Your task to perform on an android device: open device folders in google photos Image 0: 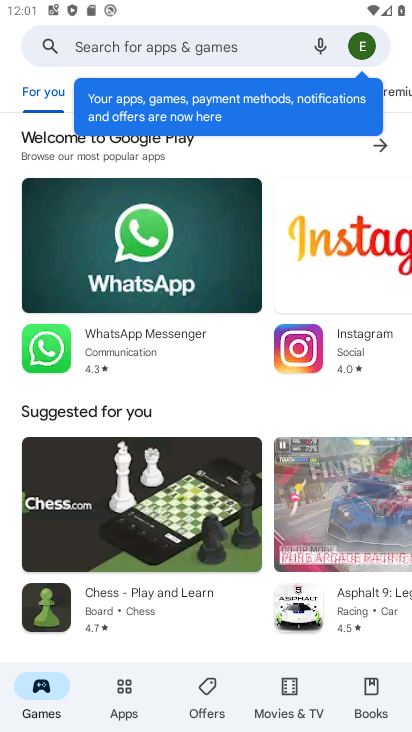
Step 0: press home button
Your task to perform on an android device: open device folders in google photos Image 1: 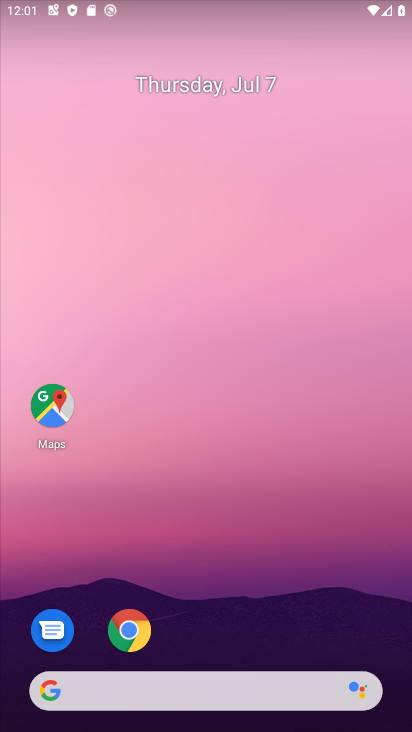
Step 1: drag from (199, 539) to (380, 19)
Your task to perform on an android device: open device folders in google photos Image 2: 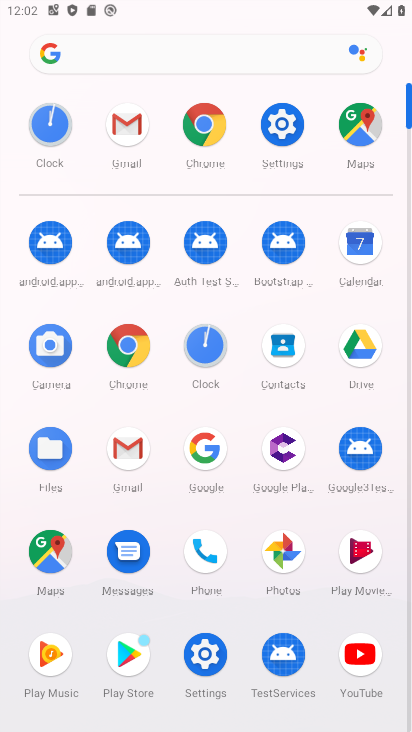
Step 2: click (258, 580)
Your task to perform on an android device: open device folders in google photos Image 3: 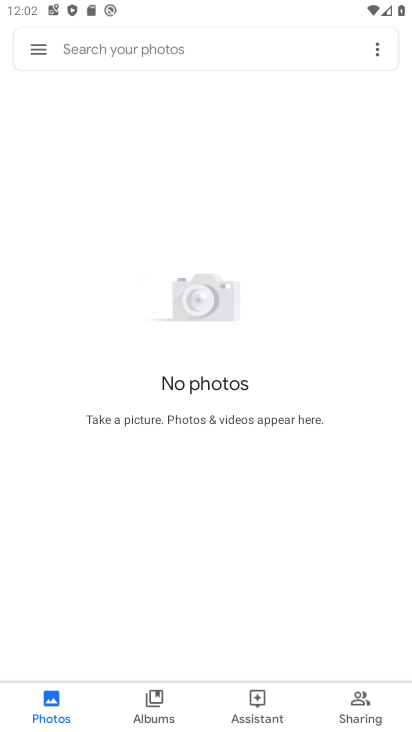
Step 3: click (45, 51)
Your task to perform on an android device: open device folders in google photos Image 4: 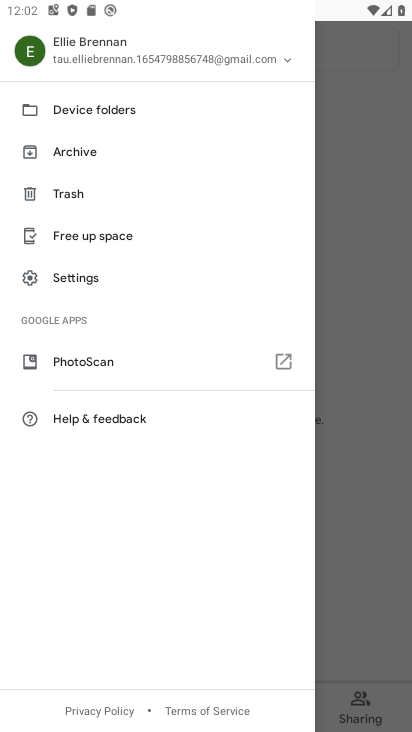
Step 4: click (94, 109)
Your task to perform on an android device: open device folders in google photos Image 5: 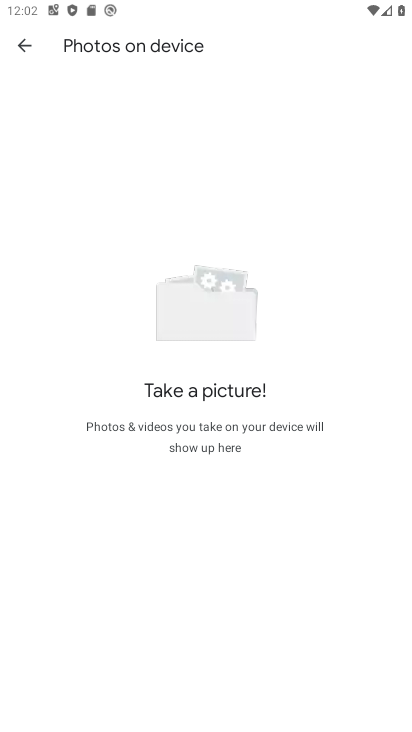
Step 5: task complete